Your task to perform on an android device: empty trash in google photos Image 0: 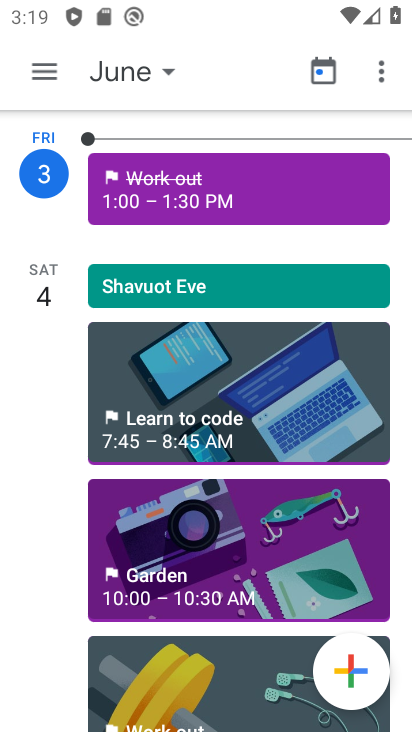
Step 0: press home button
Your task to perform on an android device: empty trash in google photos Image 1: 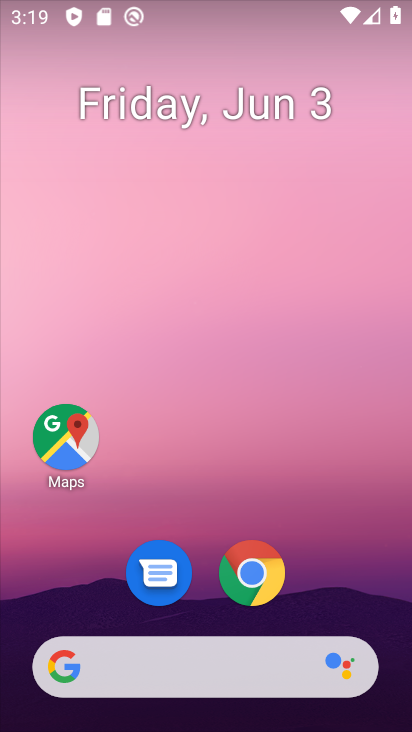
Step 1: drag from (379, 686) to (334, 24)
Your task to perform on an android device: empty trash in google photos Image 2: 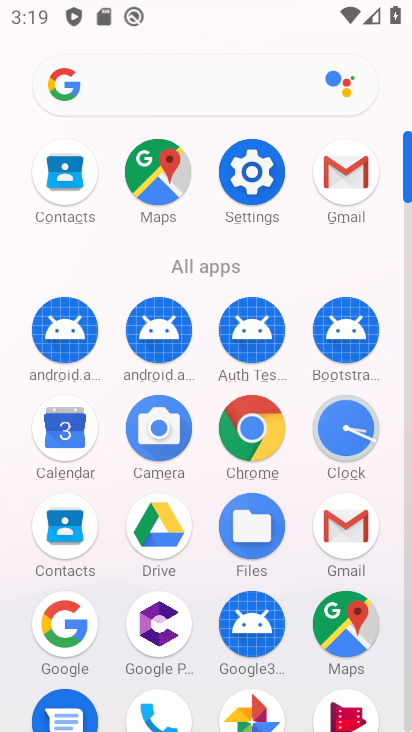
Step 2: click (242, 705)
Your task to perform on an android device: empty trash in google photos Image 3: 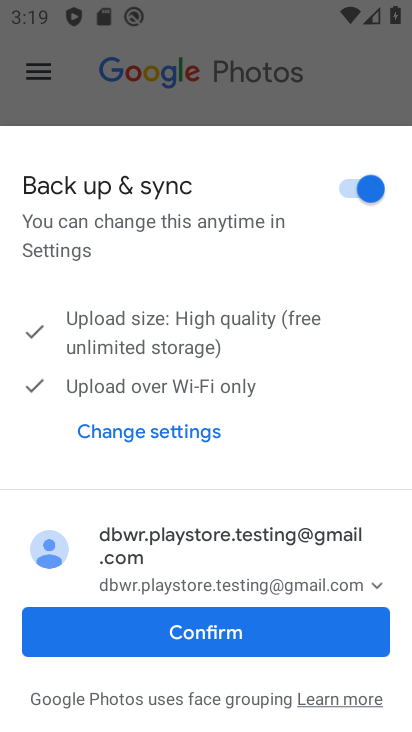
Step 3: click (246, 649)
Your task to perform on an android device: empty trash in google photos Image 4: 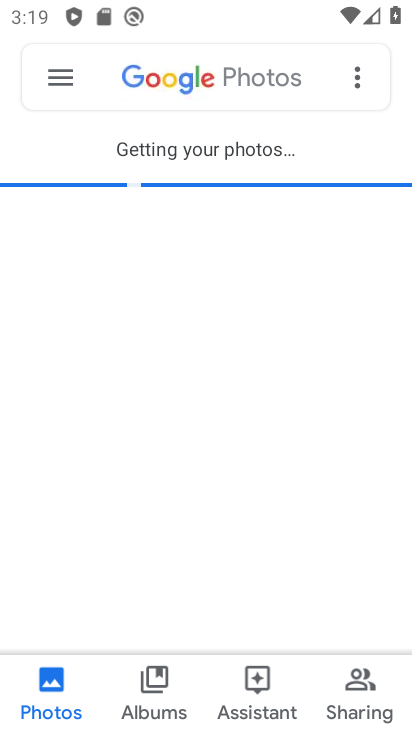
Step 4: click (50, 75)
Your task to perform on an android device: empty trash in google photos Image 5: 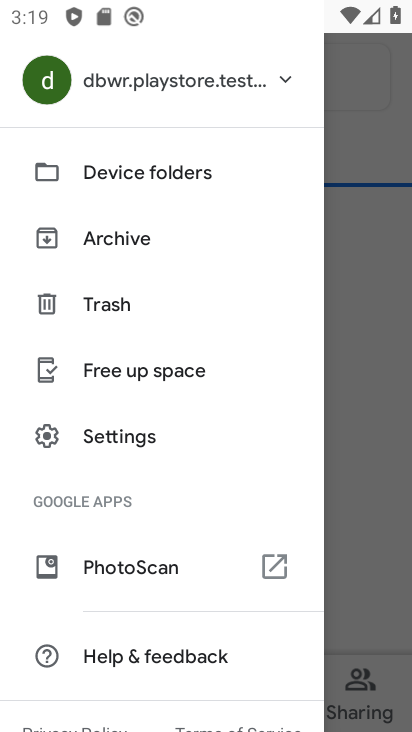
Step 5: click (101, 296)
Your task to perform on an android device: empty trash in google photos Image 6: 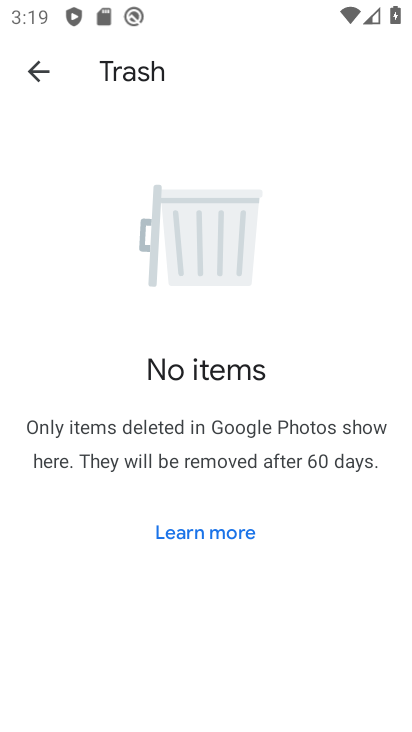
Step 6: task complete